Your task to perform on an android device: Open network settings Image 0: 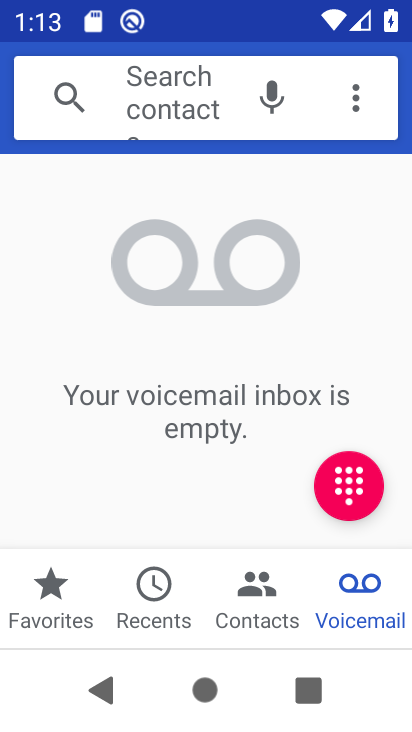
Step 0: press home button
Your task to perform on an android device: Open network settings Image 1: 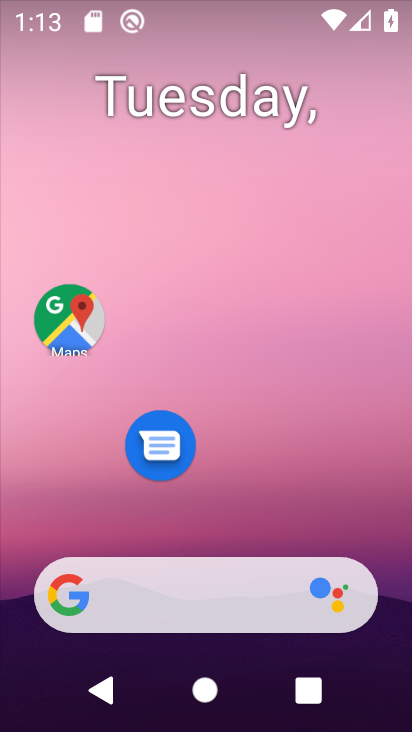
Step 1: drag from (264, 507) to (207, 22)
Your task to perform on an android device: Open network settings Image 2: 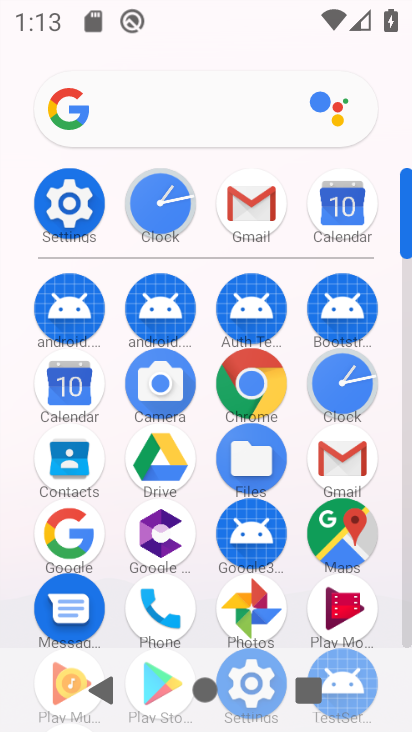
Step 2: click (71, 199)
Your task to perform on an android device: Open network settings Image 3: 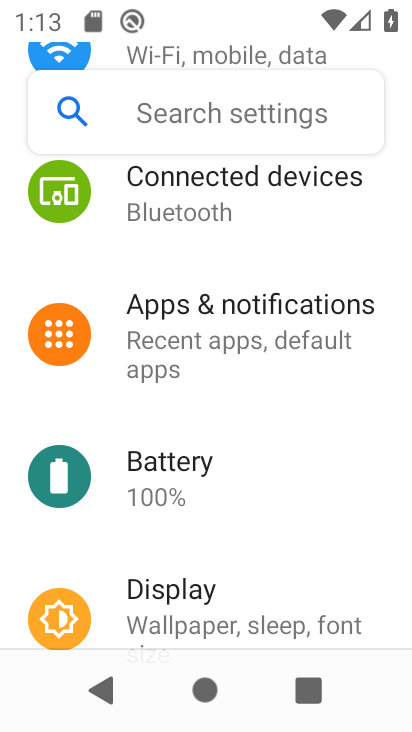
Step 3: drag from (243, 272) to (232, 601)
Your task to perform on an android device: Open network settings Image 4: 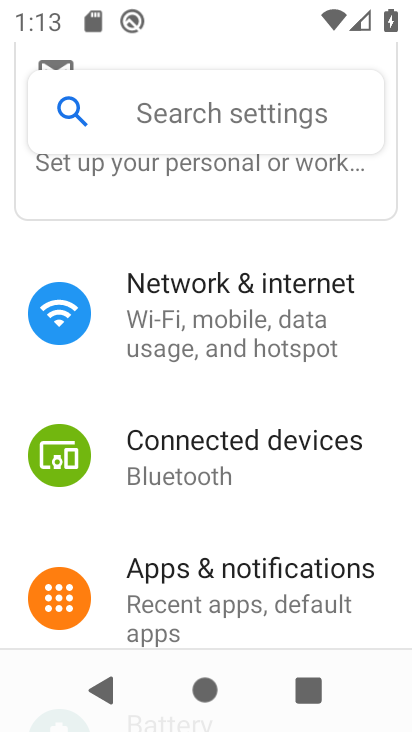
Step 4: click (196, 277)
Your task to perform on an android device: Open network settings Image 5: 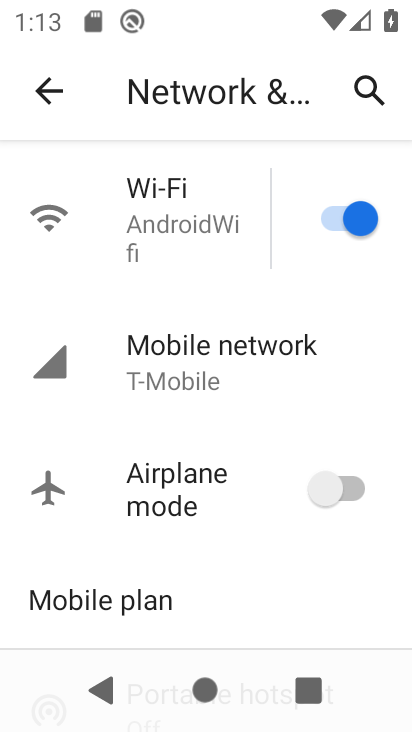
Step 5: task complete